Your task to perform on an android device: Go to eBay Image 0: 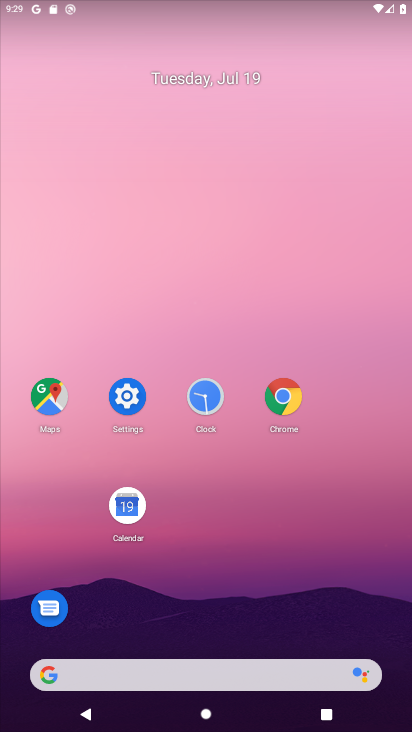
Step 0: click (283, 398)
Your task to perform on an android device: Go to eBay Image 1: 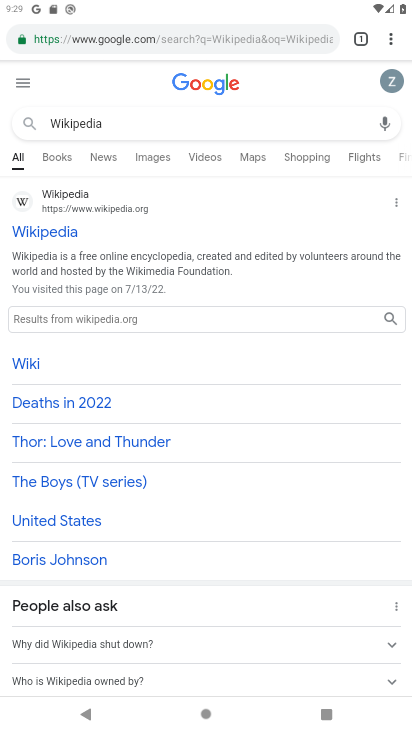
Step 1: click (161, 42)
Your task to perform on an android device: Go to eBay Image 2: 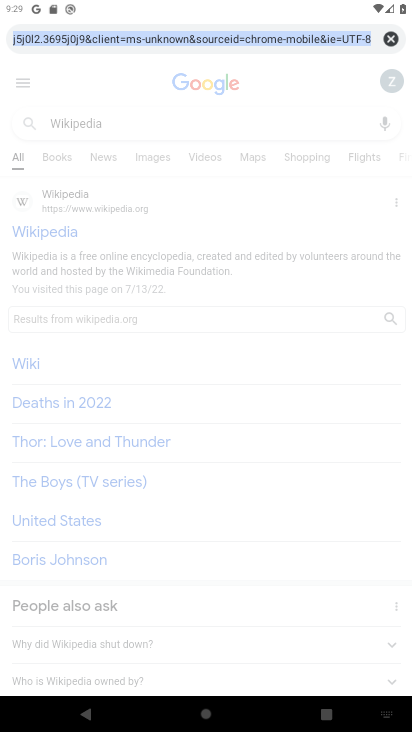
Step 2: click (386, 34)
Your task to perform on an android device: Go to eBay Image 3: 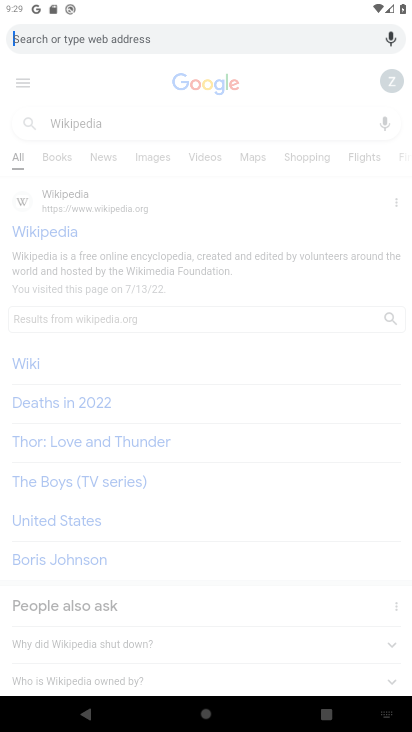
Step 3: type "eBay"
Your task to perform on an android device: Go to eBay Image 4: 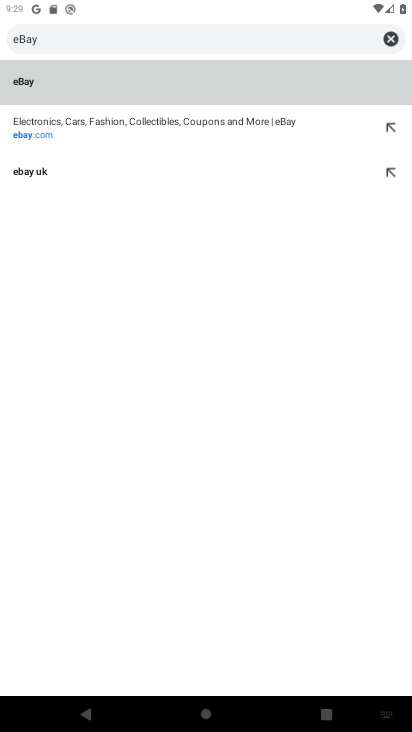
Step 4: click (103, 85)
Your task to perform on an android device: Go to eBay Image 5: 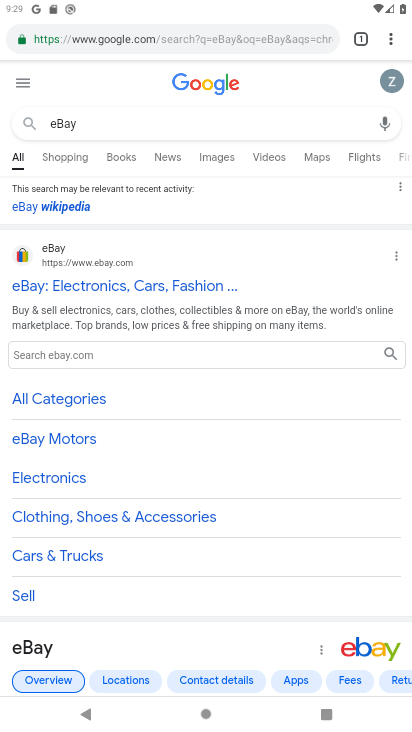
Step 5: task complete